Your task to perform on an android device: Open Google Image 0: 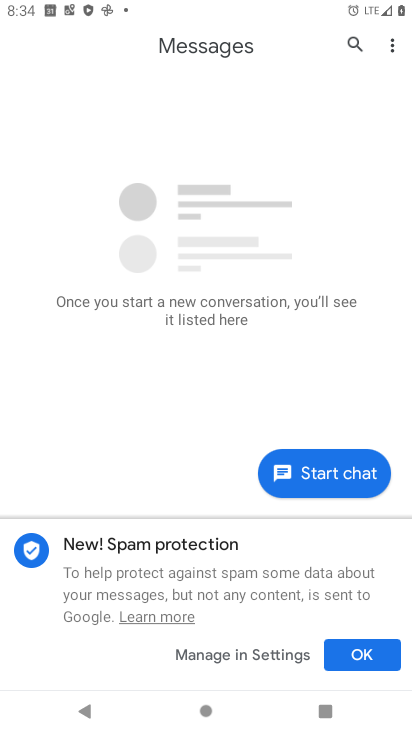
Step 0: press home button
Your task to perform on an android device: Open Google Image 1: 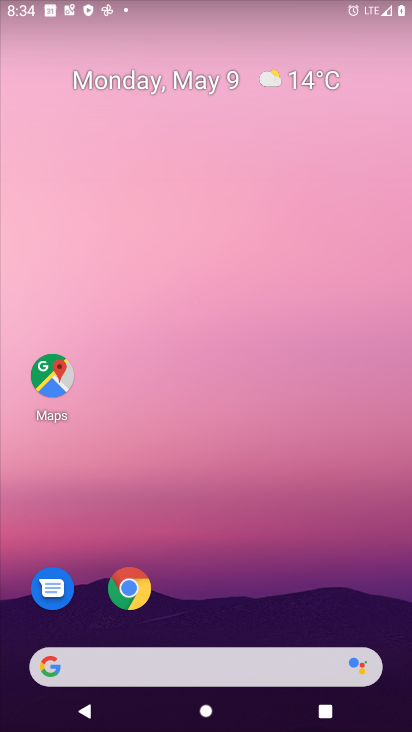
Step 1: drag from (384, 597) to (236, 158)
Your task to perform on an android device: Open Google Image 2: 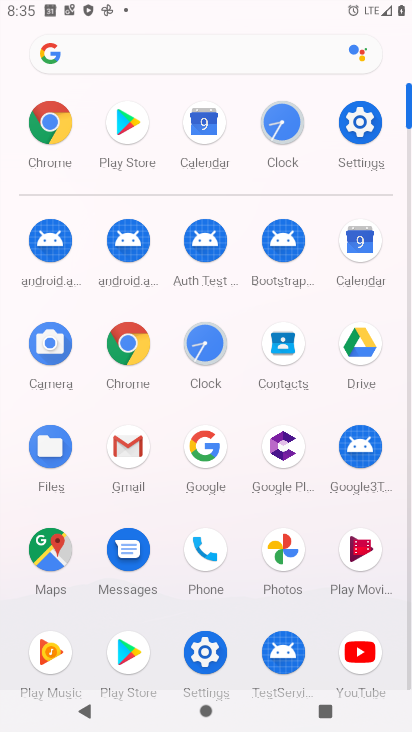
Step 2: click (216, 449)
Your task to perform on an android device: Open Google Image 3: 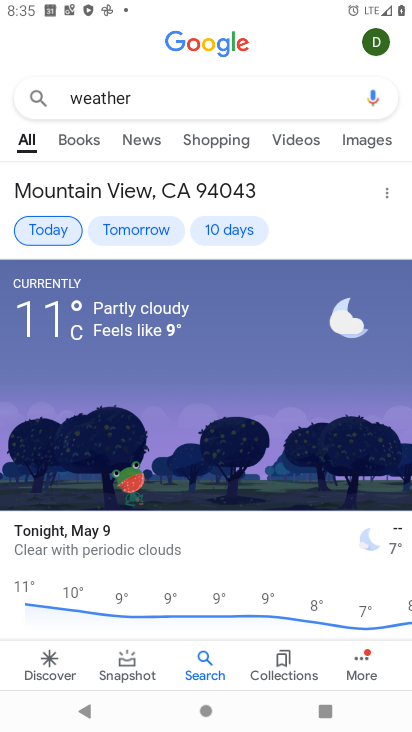
Step 3: press back button
Your task to perform on an android device: Open Google Image 4: 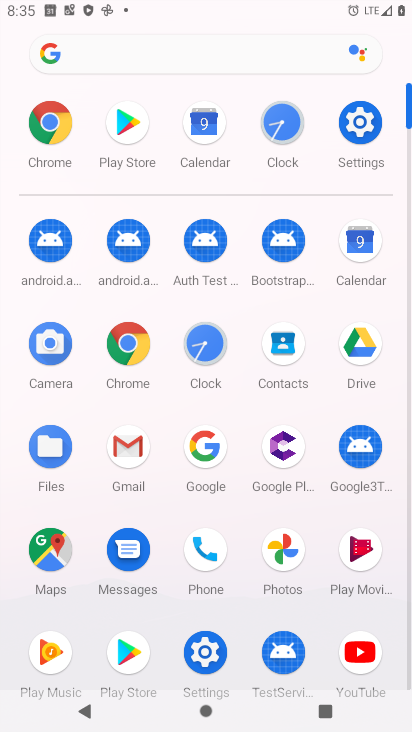
Step 4: click (215, 467)
Your task to perform on an android device: Open Google Image 5: 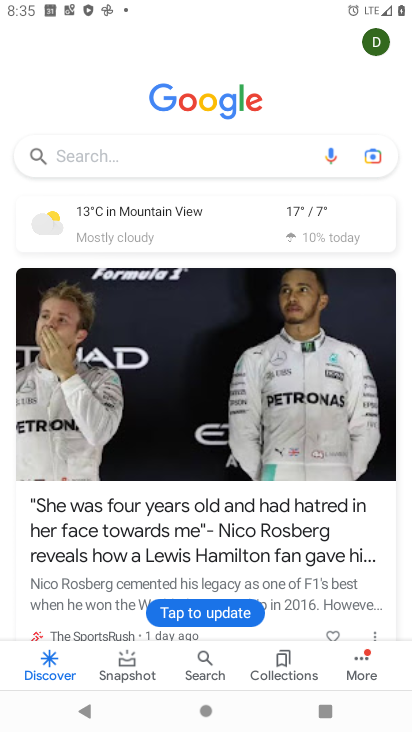
Step 5: task complete